Your task to perform on an android device: refresh tabs in the chrome app Image 0: 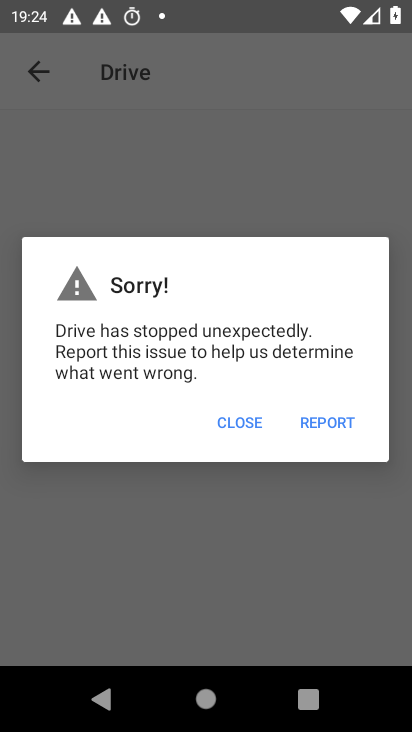
Step 0: press home button
Your task to perform on an android device: refresh tabs in the chrome app Image 1: 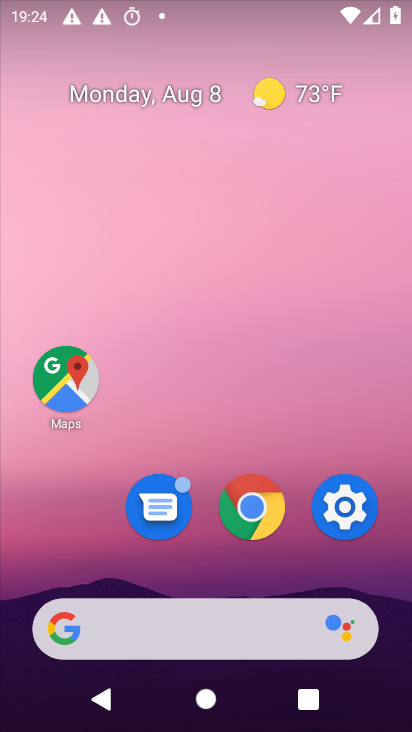
Step 1: drag from (238, 655) to (248, 219)
Your task to perform on an android device: refresh tabs in the chrome app Image 2: 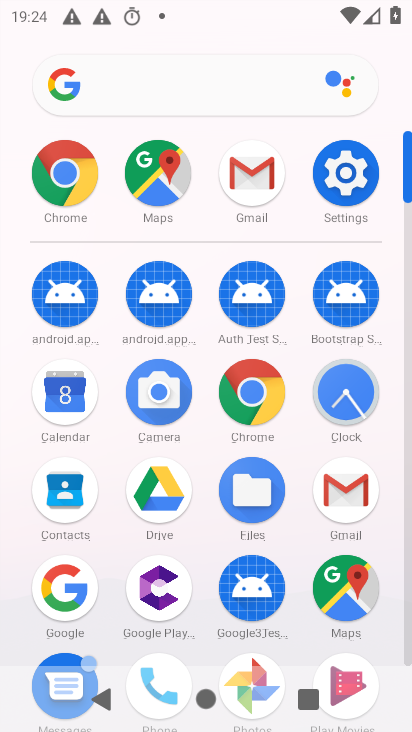
Step 2: click (65, 181)
Your task to perform on an android device: refresh tabs in the chrome app Image 3: 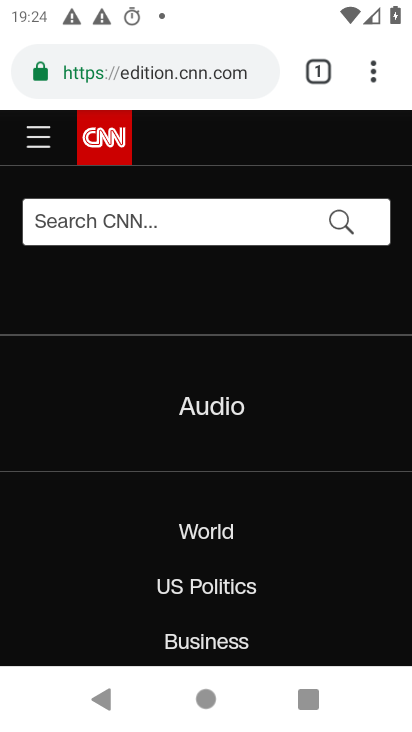
Step 3: click (370, 83)
Your task to perform on an android device: refresh tabs in the chrome app Image 4: 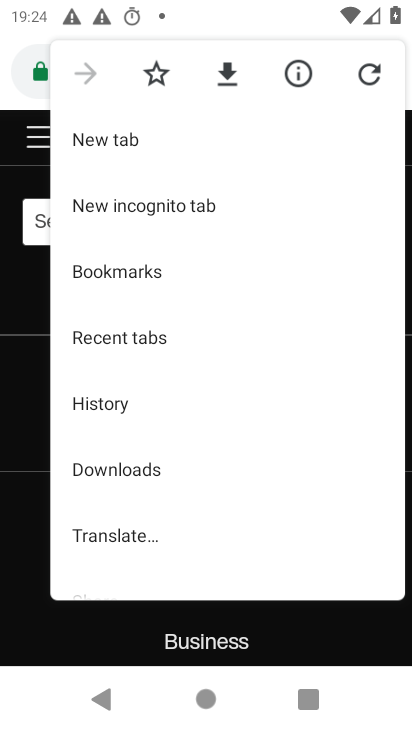
Step 4: click (369, 79)
Your task to perform on an android device: refresh tabs in the chrome app Image 5: 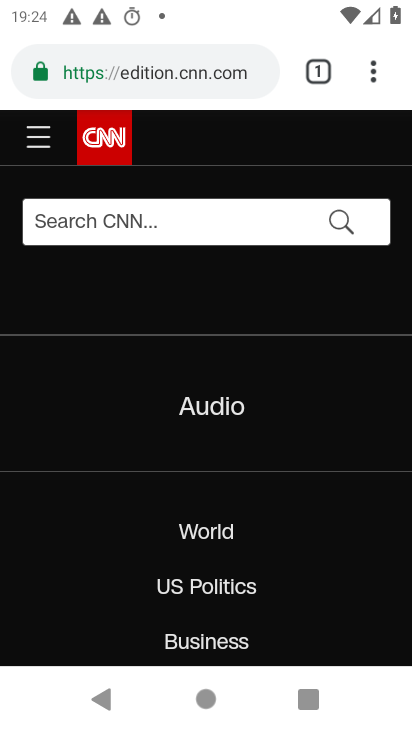
Step 5: task complete